Your task to perform on an android device: Go to display settings Image 0: 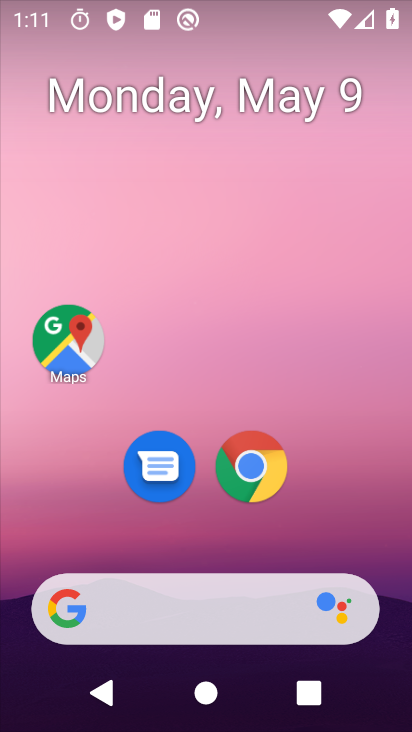
Step 0: drag from (317, 504) to (326, 212)
Your task to perform on an android device: Go to display settings Image 1: 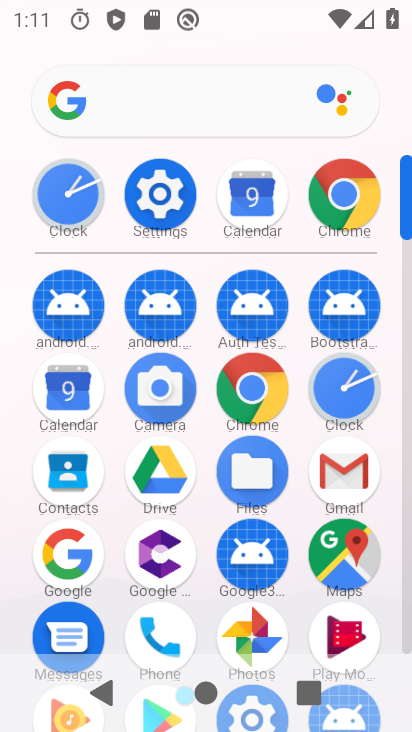
Step 1: click (165, 210)
Your task to perform on an android device: Go to display settings Image 2: 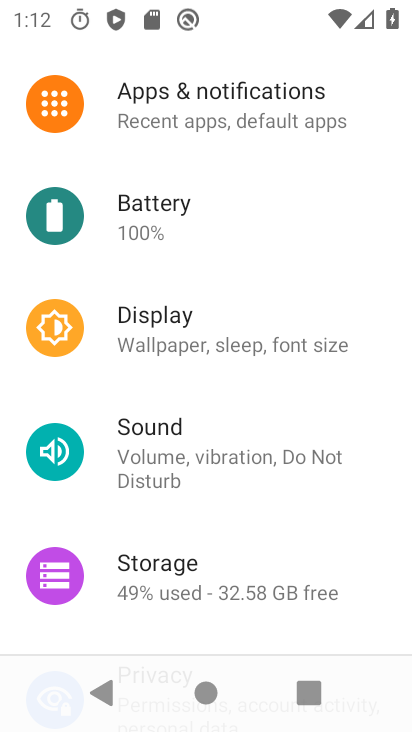
Step 2: click (194, 347)
Your task to perform on an android device: Go to display settings Image 3: 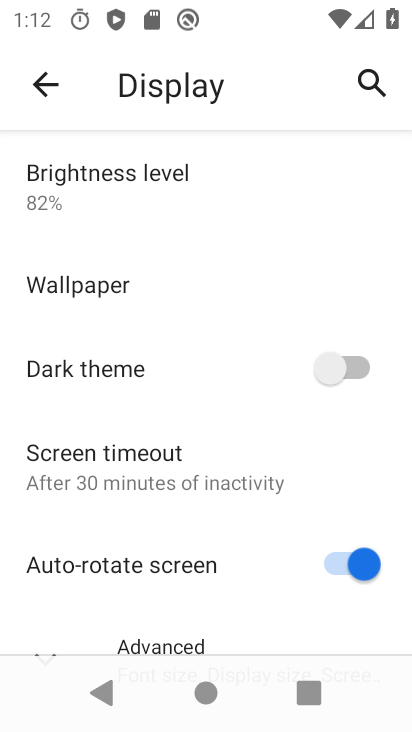
Step 3: task complete